Your task to perform on an android device: turn on notifications settings in the gmail app Image 0: 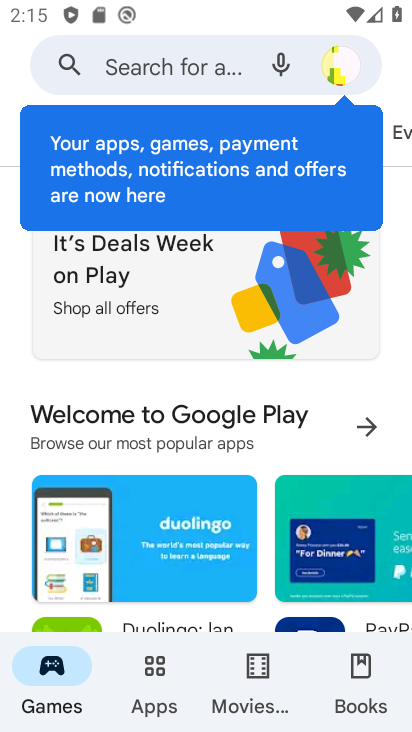
Step 0: press home button
Your task to perform on an android device: turn on notifications settings in the gmail app Image 1: 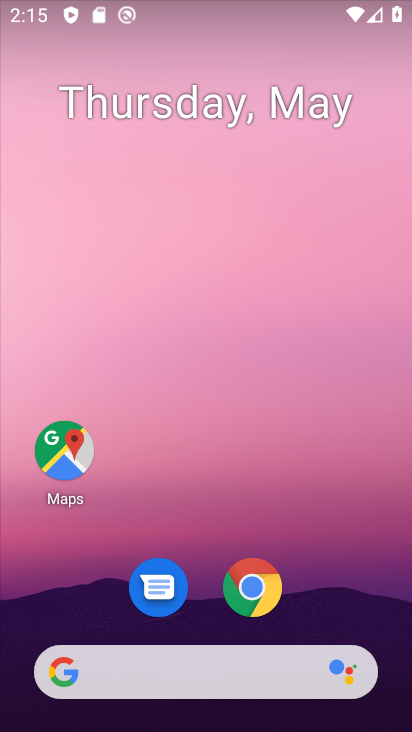
Step 1: drag from (331, 537) to (268, 45)
Your task to perform on an android device: turn on notifications settings in the gmail app Image 2: 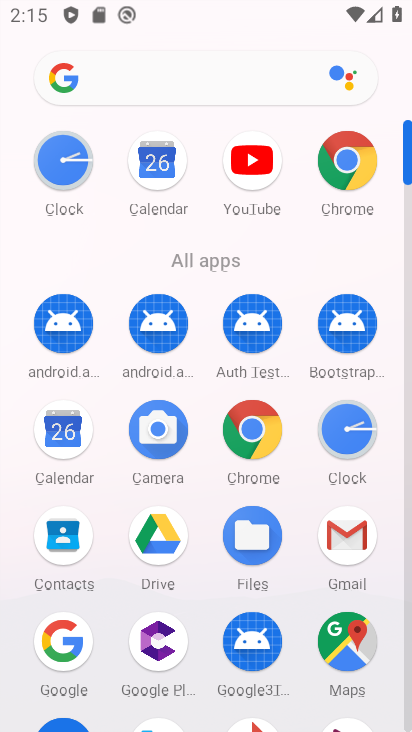
Step 2: drag from (299, 527) to (286, 145)
Your task to perform on an android device: turn on notifications settings in the gmail app Image 3: 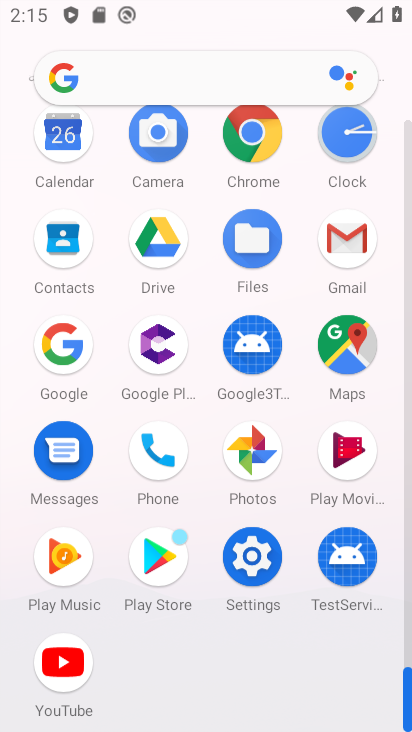
Step 3: click (252, 560)
Your task to perform on an android device: turn on notifications settings in the gmail app Image 4: 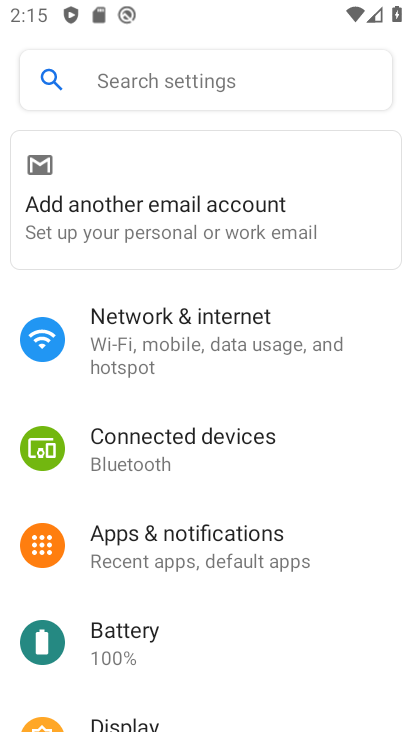
Step 4: click (250, 554)
Your task to perform on an android device: turn on notifications settings in the gmail app Image 5: 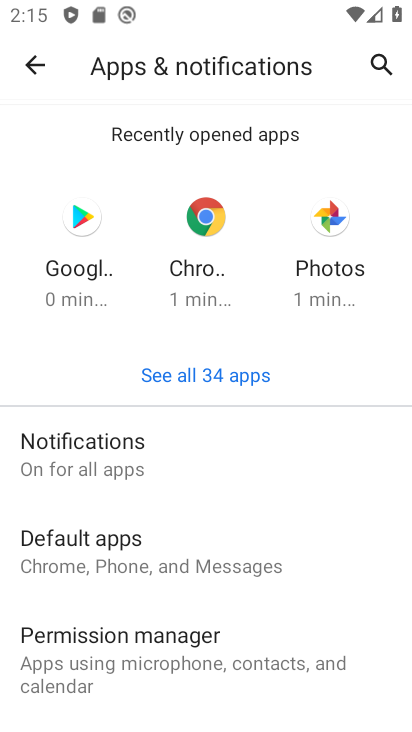
Step 5: click (104, 477)
Your task to perform on an android device: turn on notifications settings in the gmail app Image 6: 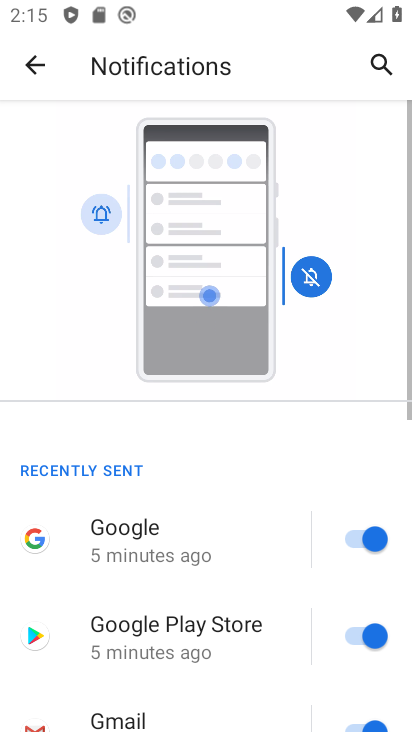
Step 6: task complete